Your task to perform on an android device: toggle sleep mode Image 0: 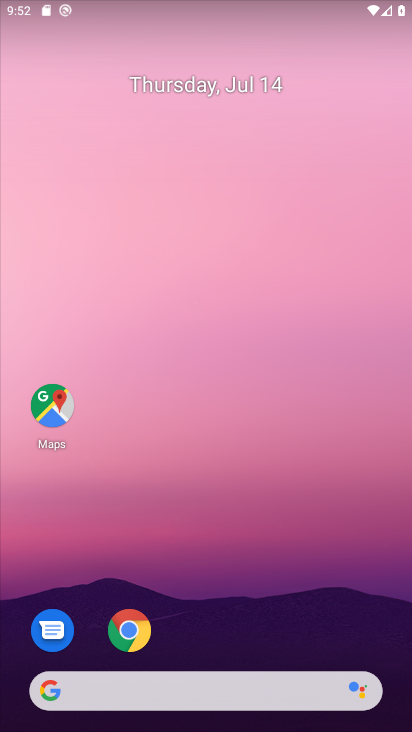
Step 0: click (393, 19)
Your task to perform on an android device: toggle sleep mode Image 1: 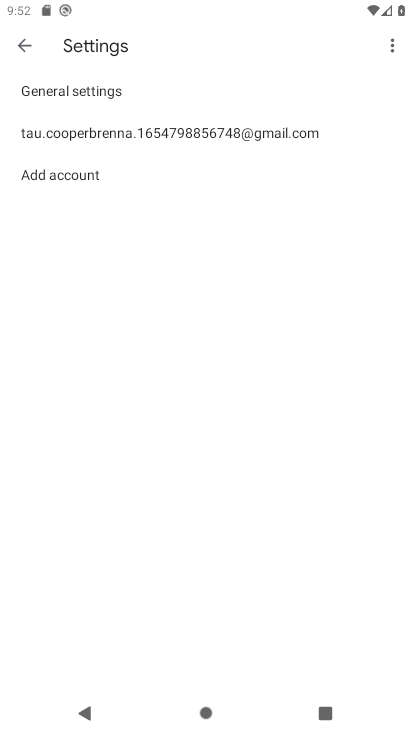
Step 1: drag from (215, 653) to (243, 208)
Your task to perform on an android device: toggle sleep mode Image 2: 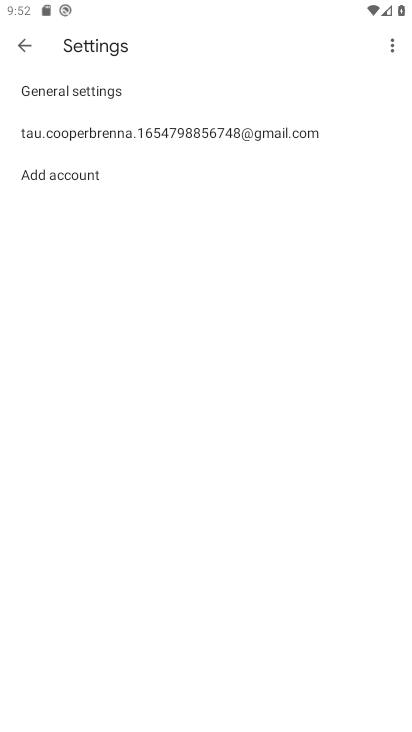
Step 2: press home button
Your task to perform on an android device: toggle sleep mode Image 3: 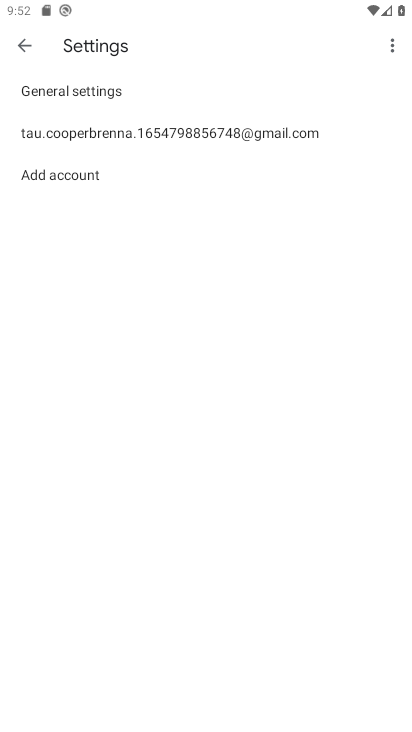
Step 3: press home button
Your task to perform on an android device: toggle sleep mode Image 4: 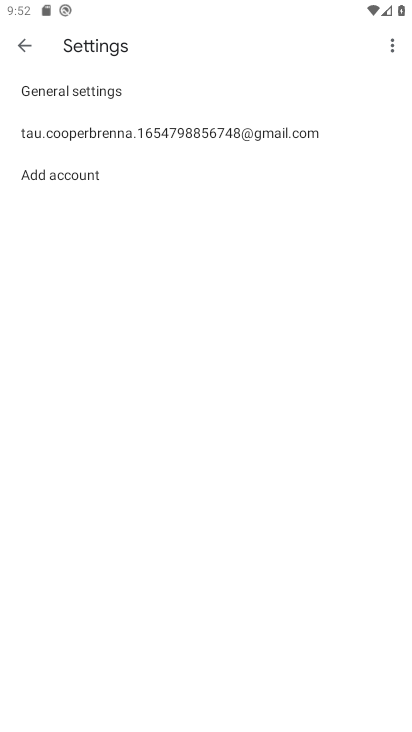
Step 4: drag from (220, 563) to (285, 33)
Your task to perform on an android device: toggle sleep mode Image 5: 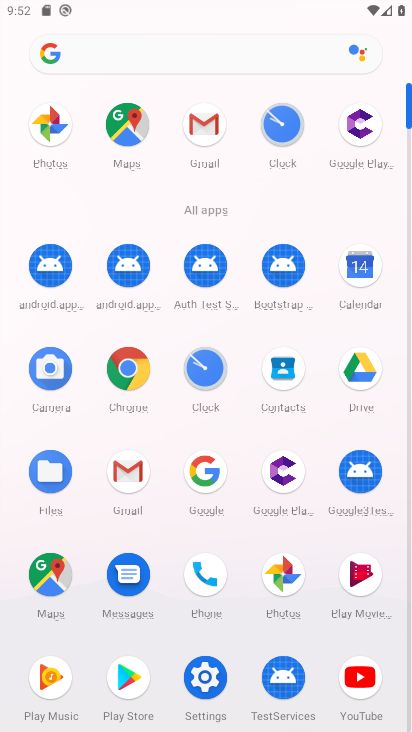
Step 5: click (203, 685)
Your task to perform on an android device: toggle sleep mode Image 6: 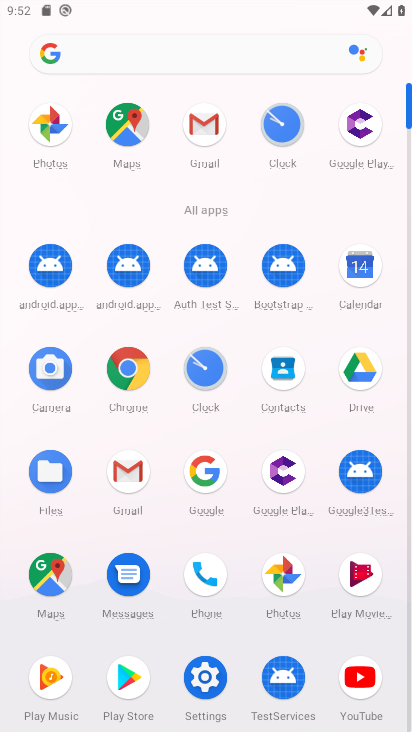
Step 6: click (203, 684)
Your task to perform on an android device: toggle sleep mode Image 7: 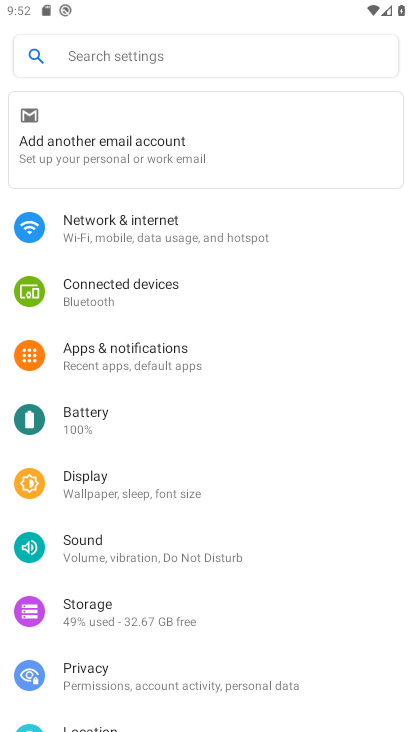
Step 7: click (123, 482)
Your task to perform on an android device: toggle sleep mode Image 8: 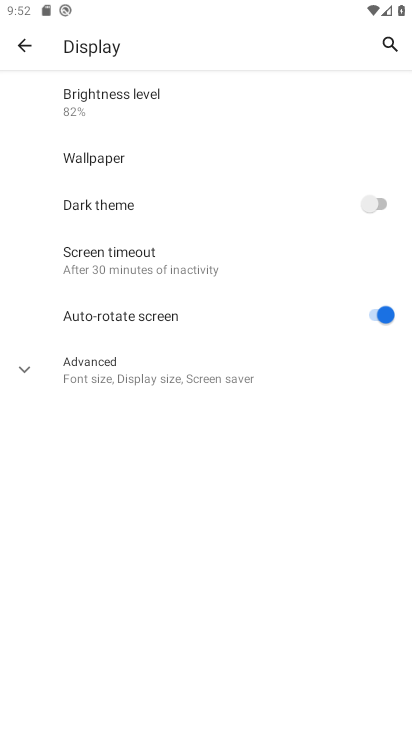
Step 8: click (127, 242)
Your task to perform on an android device: toggle sleep mode Image 9: 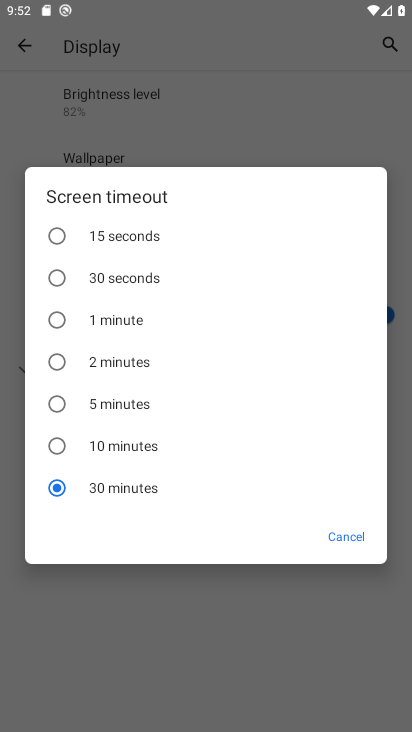
Step 9: drag from (113, 243) to (130, 534)
Your task to perform on an android device: toggle sleep mode Image 10: 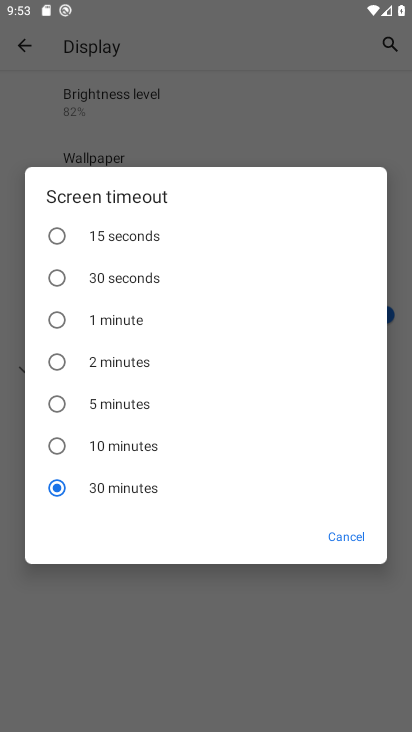
Step 10: click (52, 227)
Your task to perform on an android device: toggle sleep mode Image 11: 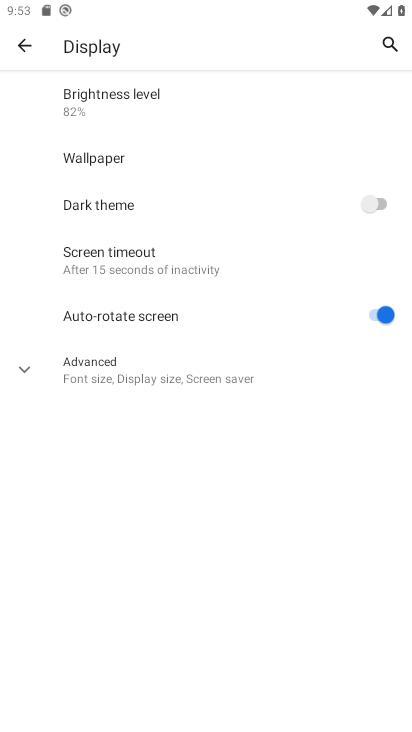
Step 11: task complete